Your task to perform on an android device: Open display settings Image 0: 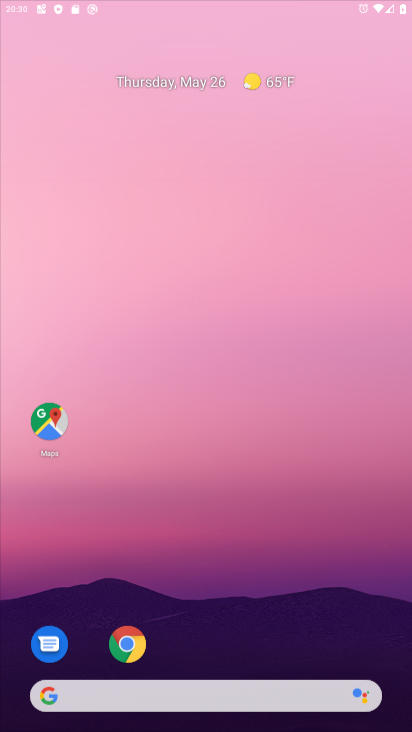
Step 0: drag from (252, 179) to (223, 6)
Your task to perform on an android device: Open display settings Image 1: 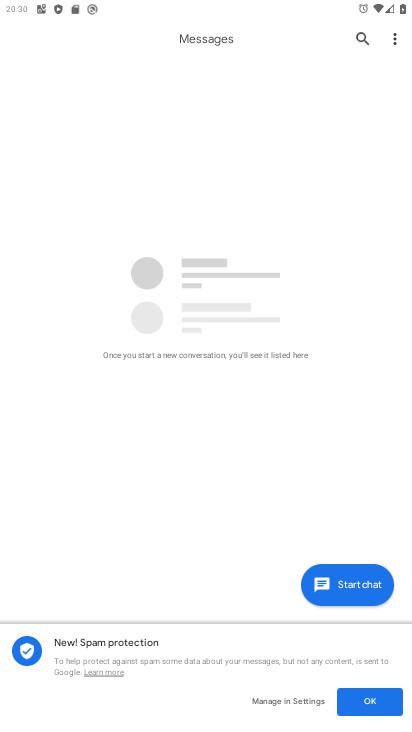
Step 1: drag from (202, 569) to (240, 209)
Your task to perform on an android device: Open display settings Image 2: 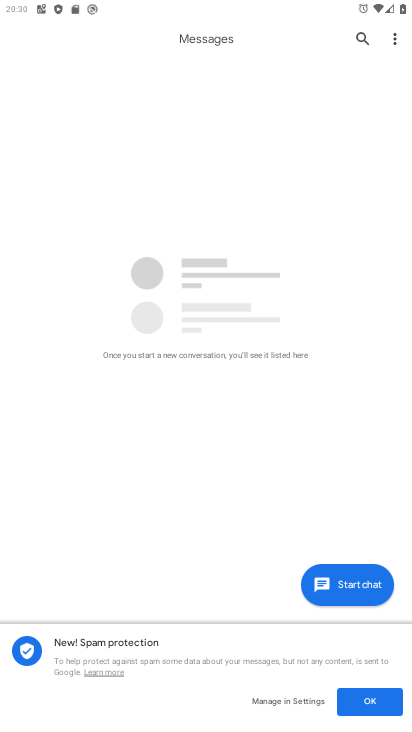
Step 2: press home button
Your task to perform on an android device: Open display settings Image 3: 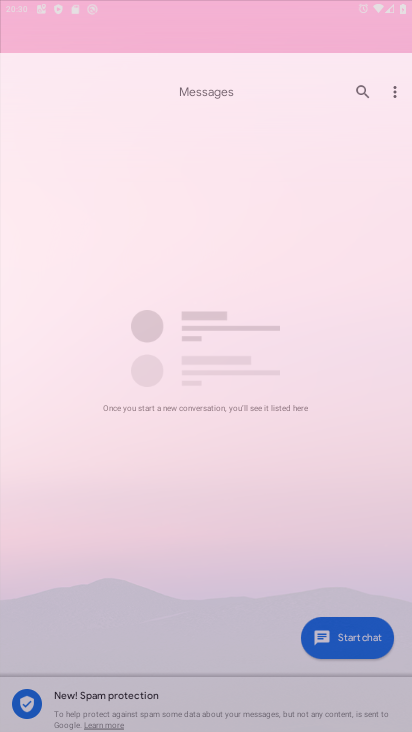
Step 3: drag from (221, 485) to (234, 51)
Your task to perform on an android device: Open display settings Image 4: 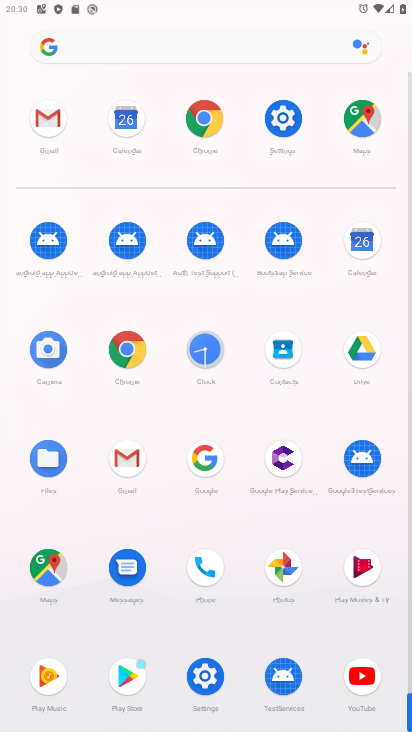
Step 4: click (275, 121)
Your task to perform on an android device: Open display settings Image 5: 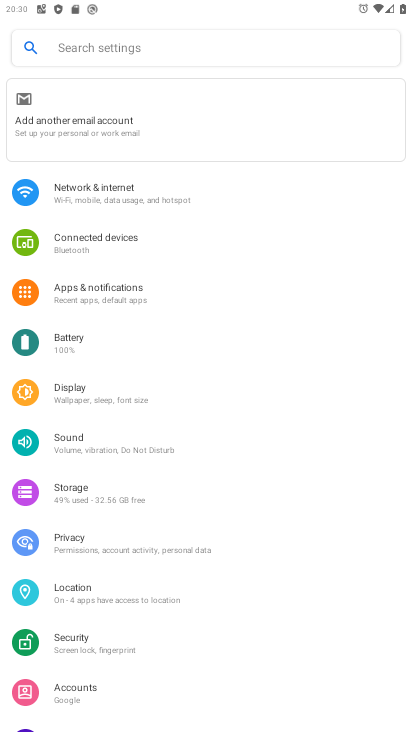
Step 5: drag from (148, 657) to (266, 168)
Your task to perform on an android device: Open display settings Image 6: 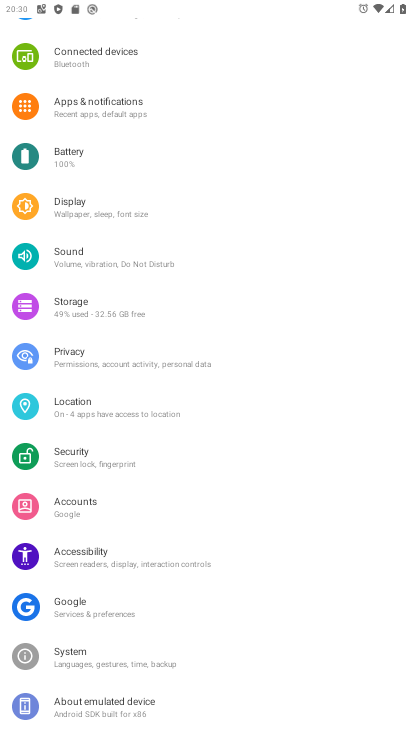
Step 6: drag from (159, 117) to (235, 498)
Your task to perform on an android device: Open display settings Image 7: 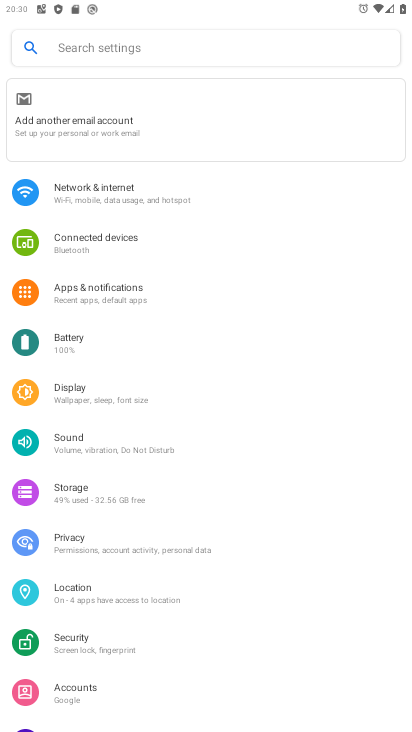
Step 7: click (79, 389)
Your task to perform on an android device: Open display settings Image 8: 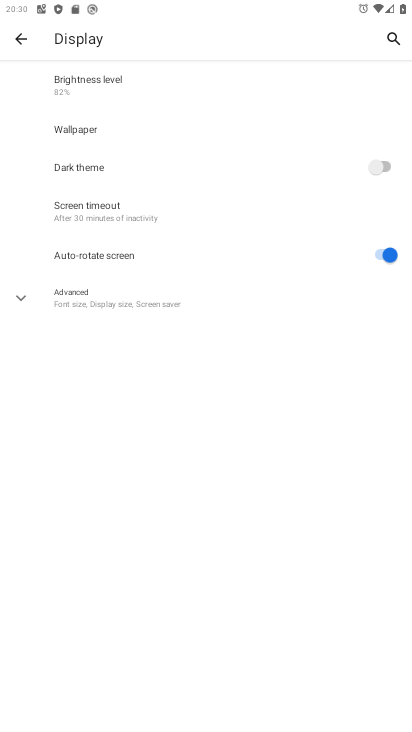
Step 8: task complete